Your task to perform on an android device: turn off notifications in google photos Image 0: 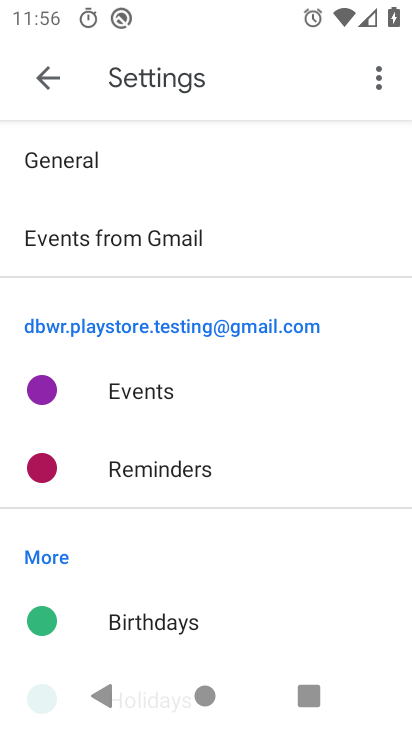
Step 0: press home button
Your task to perform on an android device: turn off notifications in google photos Image 1: 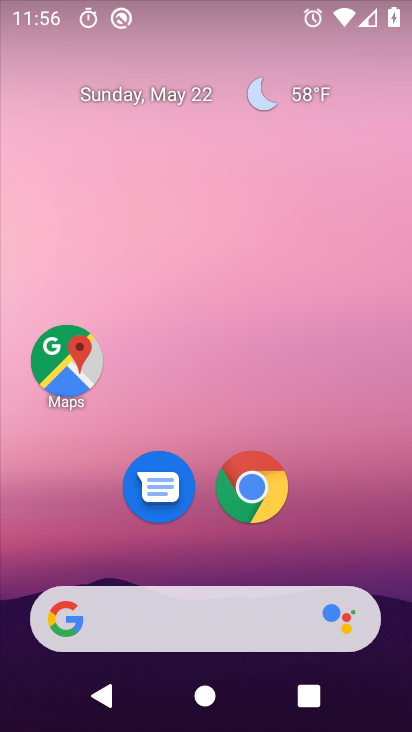
Step 1: drag from (346, 511) to (331, 216)
Your task to perform on an android device: turn off notifications in google photos Image 2: 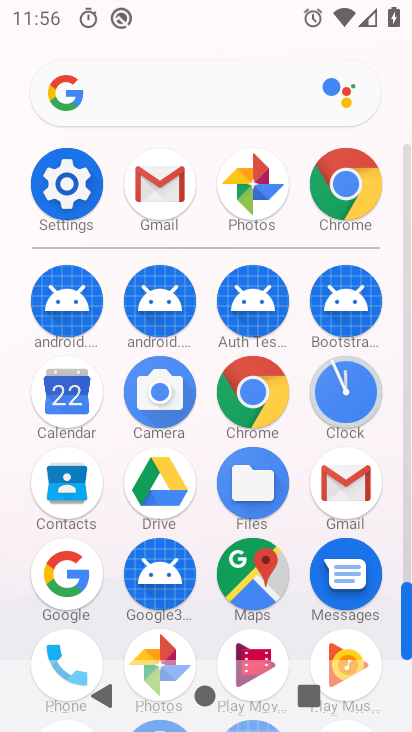
Step 2: click (160, 651)
Your task to perform on an android device: turn off notifications in google photos Image 3: 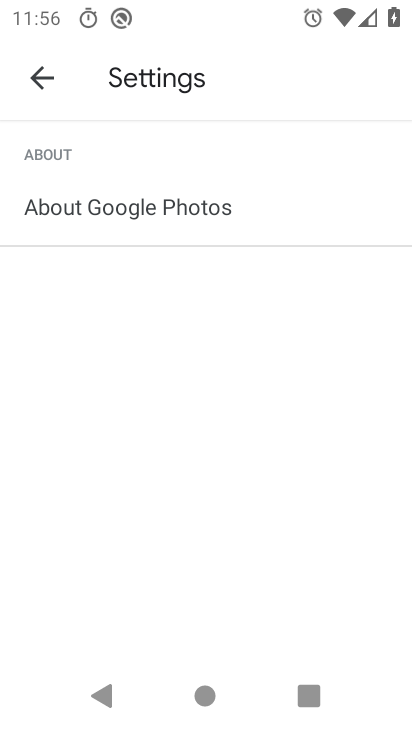
Step 3: click (39, 84)
Your task to perform on an android device: turn off notifications in google photos Image 4: 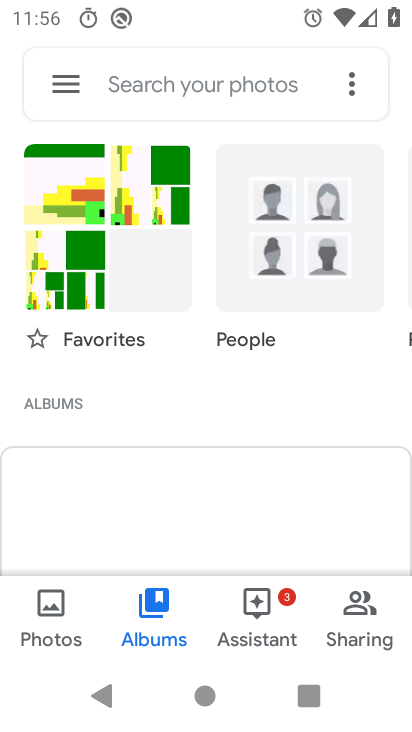
Step 4: drag from (190, 531) to (199, 217)
Your task to perform on an android device: turn off notifications in google photos Image 5: 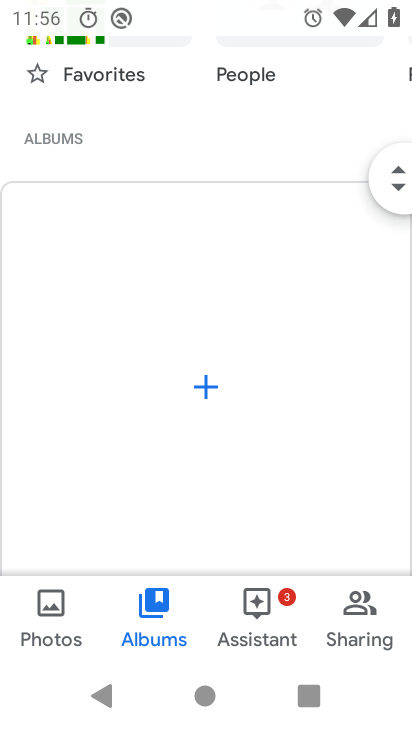
Step 5: click (194, 380)
Your task to perform on an android device: turn off notifications in google photos Image 6: 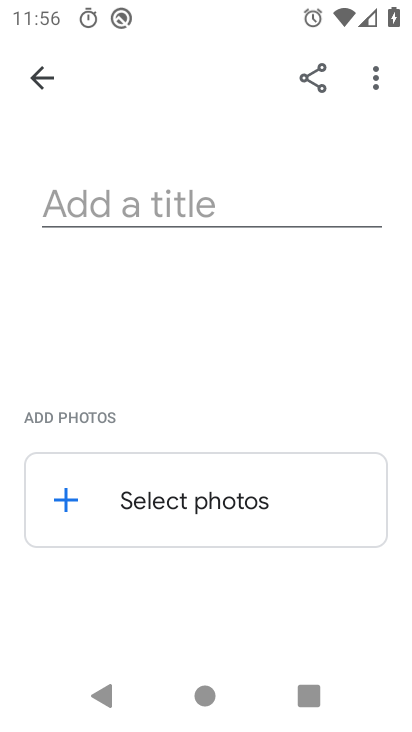
Step 6: click (92, 212)
Your task to perform on an android device: turn off notifications in google photos Image 7: 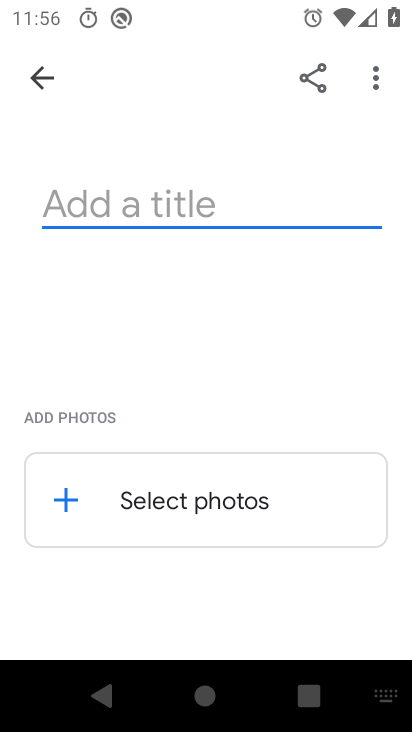
Step 7: type "kndkd"
Your task to perform on an android device: turn off notifications in google photos Image 8: 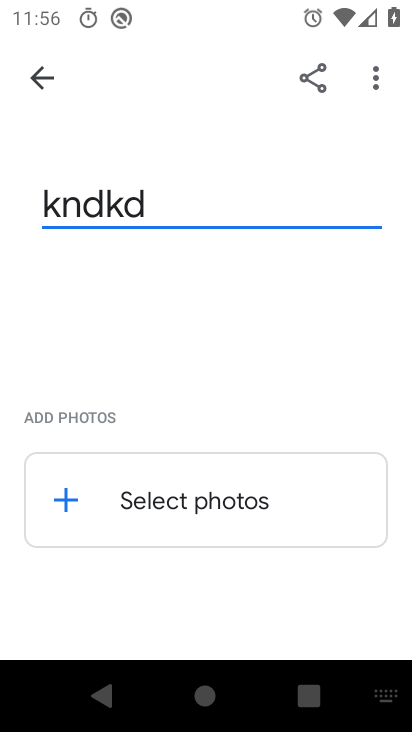
Step 8: click (64, 490)
Your task to perform on an android device: turn off notifications in google photos Image 9: 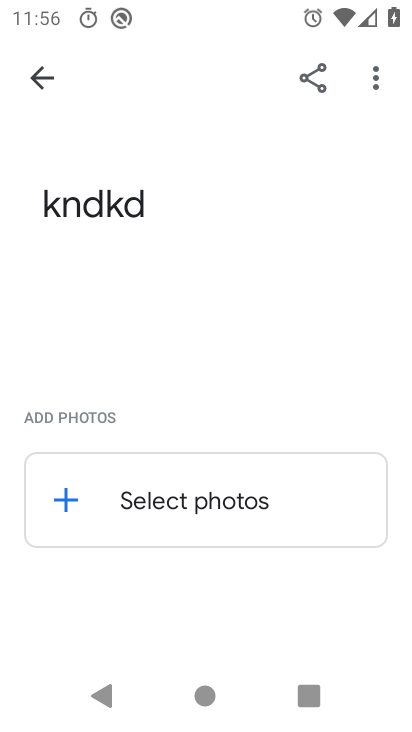
Step 9: click (65, 497)
Your task to perform on an android device: turn off notifications in google photos Image 10: 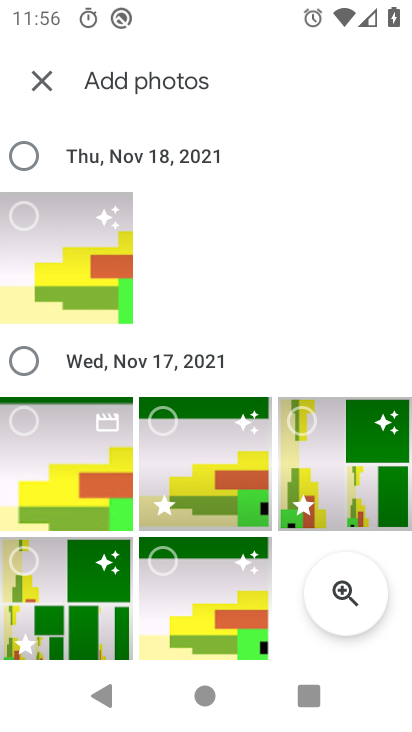
Step 10: click (27, 215)
Your task to perform on an android device: turn off notifications in google photos Image 11: 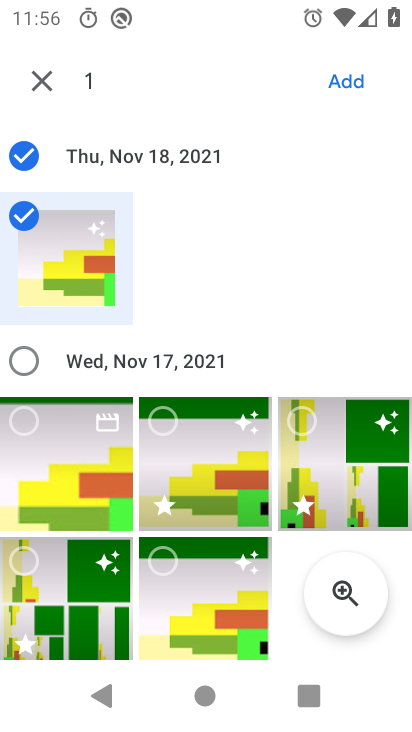
Step 11: click (355, 80)
Your task to perform on an android device: turn off notifications in google photos Image 12: 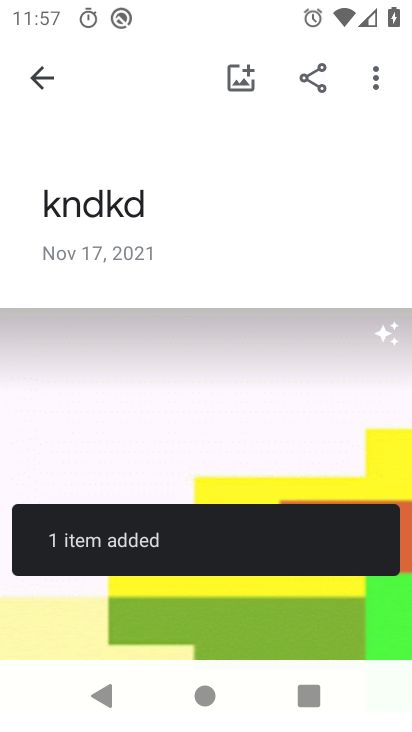
Step 12: task complete